Your task to perform on an android device: turn off notifications in google photos Image 0: 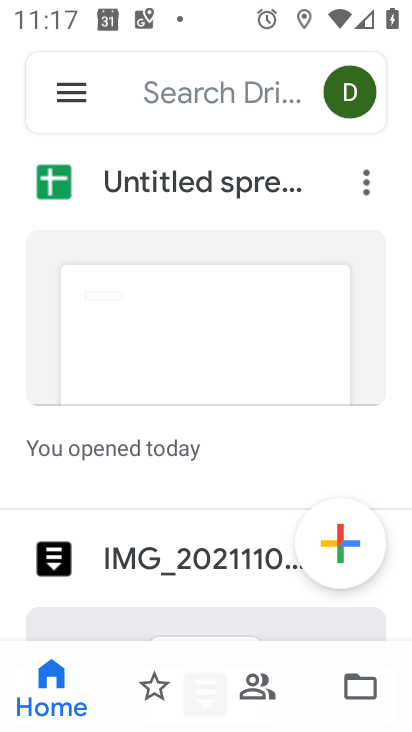
Step 0: press home button
Your task to perform on an android device: turn off notifications in google photos Image 1: 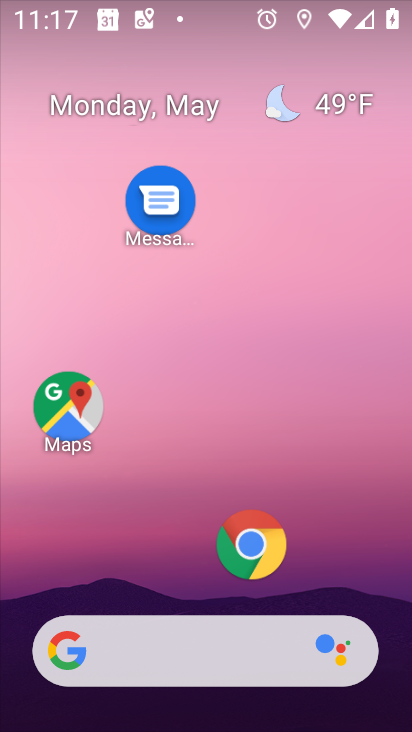
Step 1: drag from (173, 562) to (348, 7)
Your task to perform on an android device: turn off notifications in google photos Image 2: 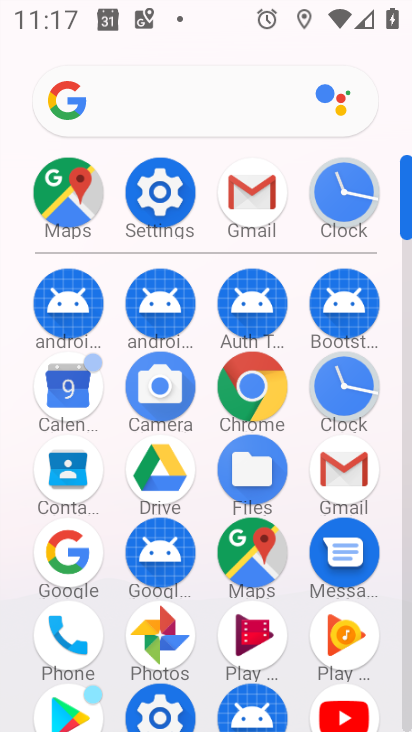
Step 2: click (155, 627)
Your task to perform on an android device: turn off notifications in google photos Image 3: 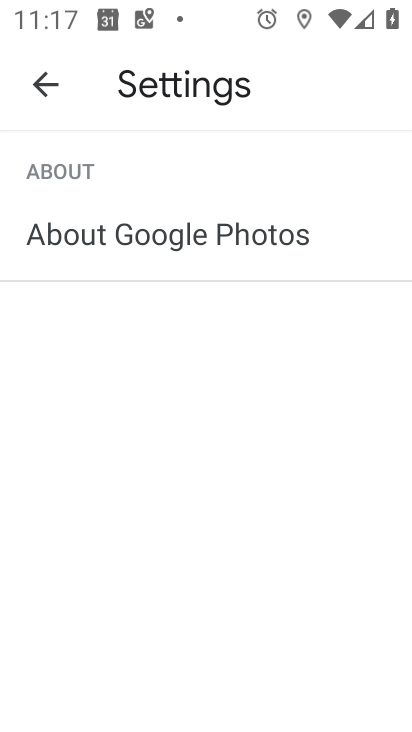
Step 3: click (41, 80)
Your task to perform on an android device: turn off notifications in google photos Image 4: 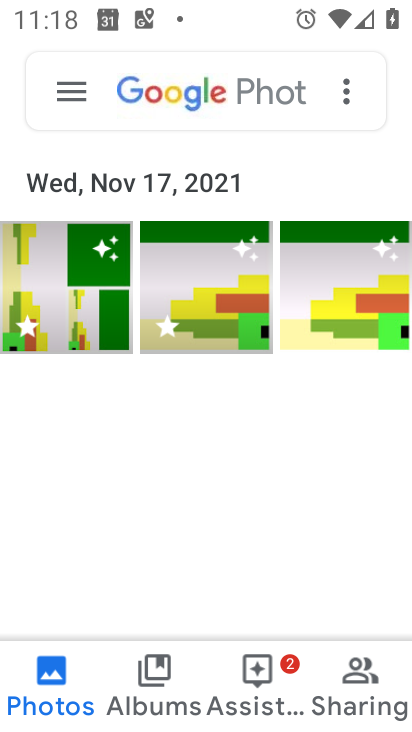
Step 4: click (81, 90)
Your task to perform on an android device: turn off notifications in google photos Image 5: 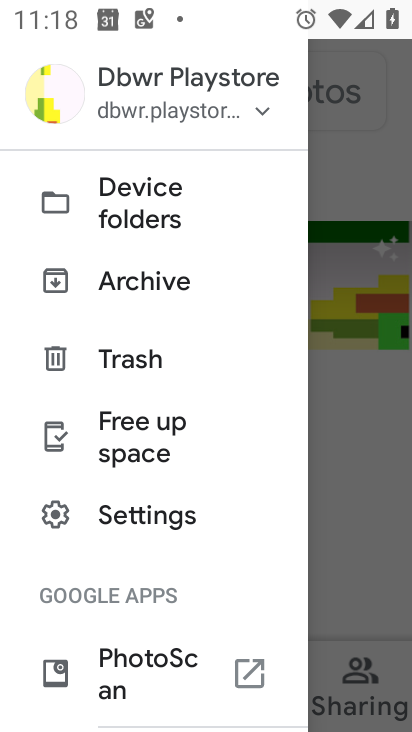
Step 5: click (121, 523)
Your task to perform on an android device: turn off notifications in google photos Image 6: 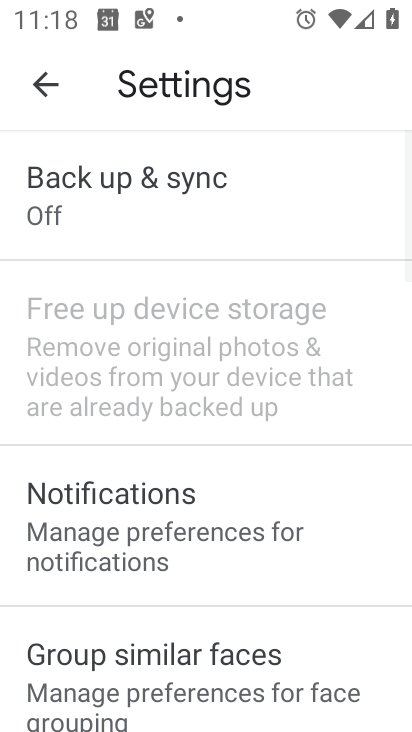
Step 6: click (176, 537)
Your task to perform on an android device: turn off notifications in google photos Image 7: 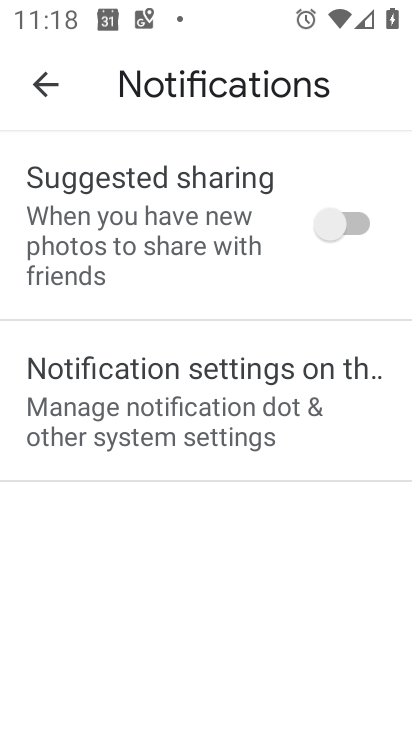
Step 7: click (238, 415)
Your task to perform on an android device: turn off notifications in google photos Image 8: 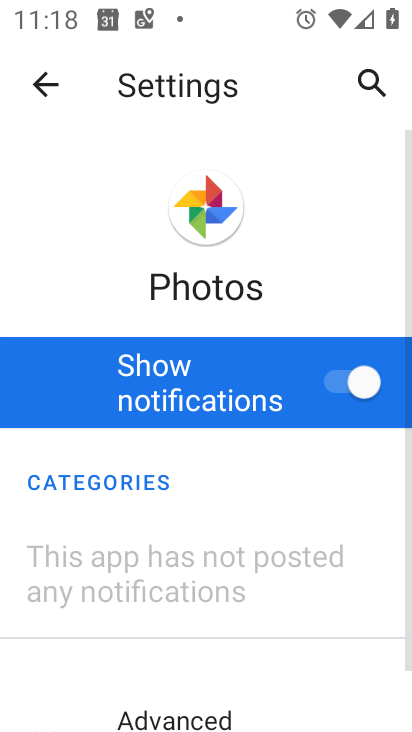
Step 8: click (342, 381)
Your task to perform on an android device: turn off notifications in google photos Image 9: 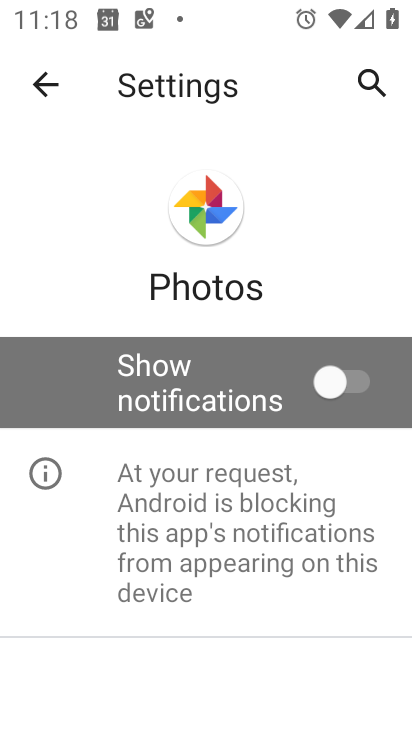
Step 9: task complete